Your task to perform on an android device: Open the web browser Image 0: 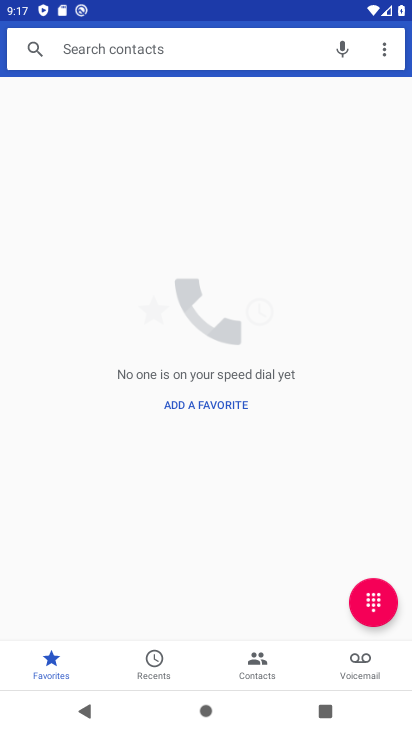
Step 0: press home button
Your task to perform on an android device: Open the web browser Image 1: 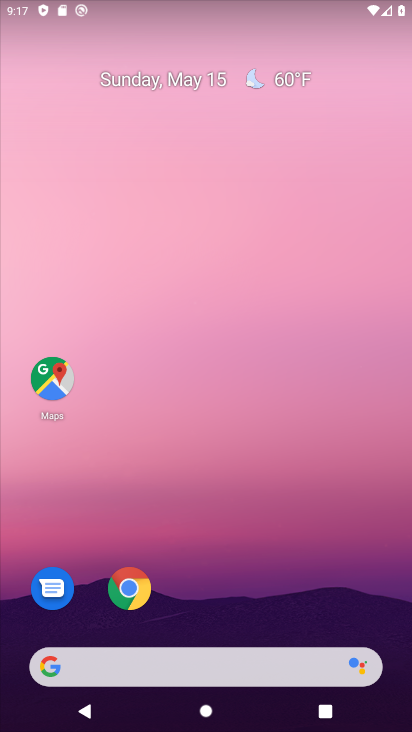
Step 1: drag from (214, 626) to (259, 150)
Your task to perform on an android device: Open the web browser Image 2: 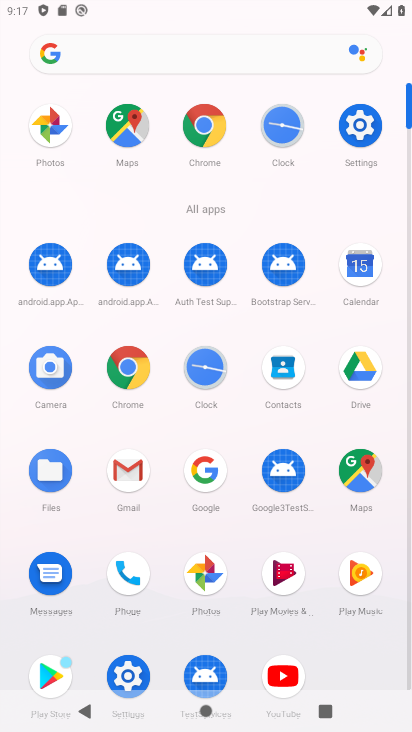
Step 2: click (133, 374)
Your task to perform on an android device: Open the web browser Image 3: 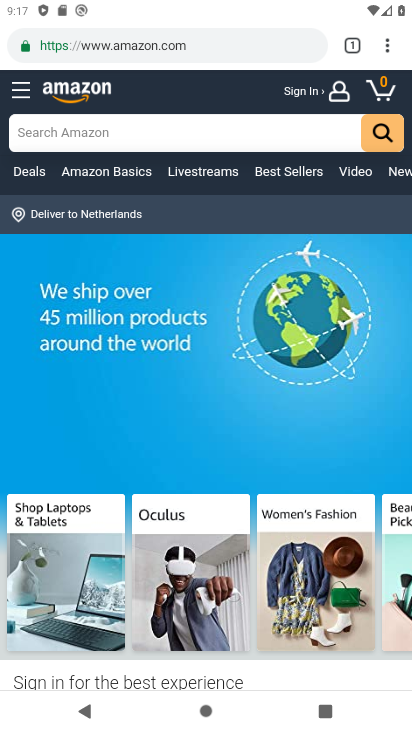
Step 3: task complete